Your task to perform on an android device: open wifi settings Image 0: 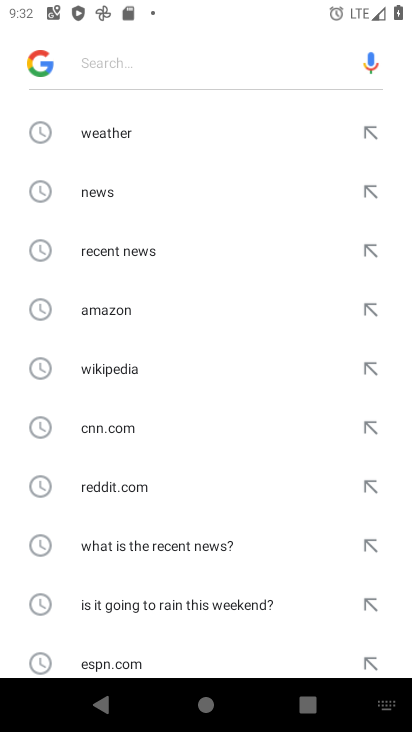
Step 0: press home button
Your task to perform on an android device: open wifi settings Image 1: 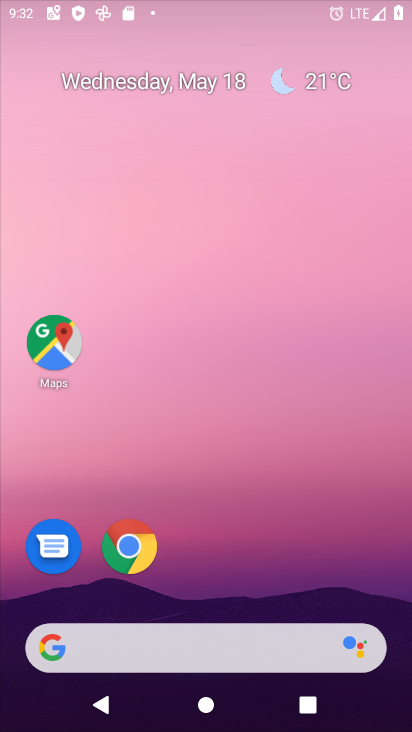
Step 1: drag from (394, 630) to (313, 1)
Your task to perform on an android device: open wifi settings Image 2: 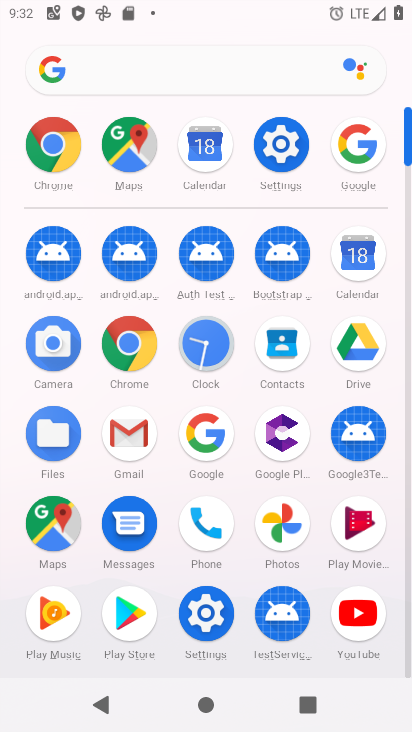
Step 2: click (280, 142)
Your task to perform on an android device: open wifi settings Image 3: 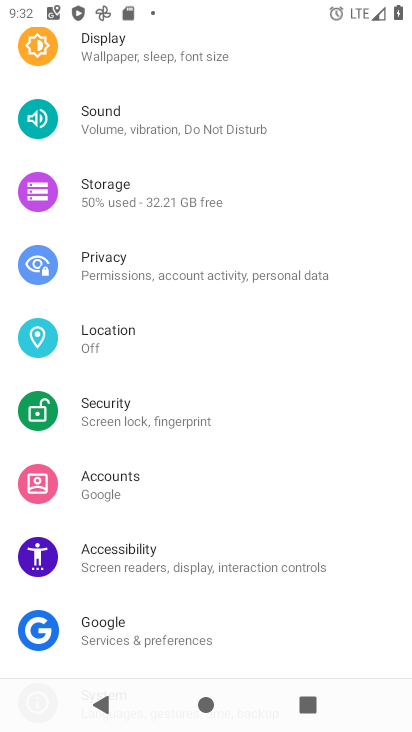
Step 3: drag from (189, 109) to (211, 557)
Your task to perform on an android device: open wifi settings Image 4: 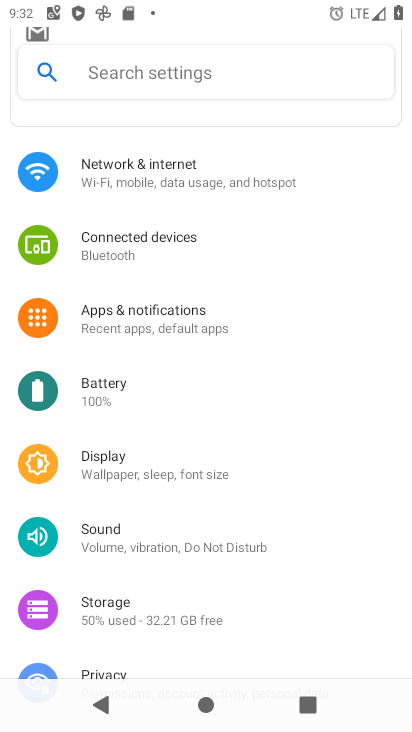
Step 4: click (132, 194)
Your task to perform on an android device: open wifi settings Image 5: 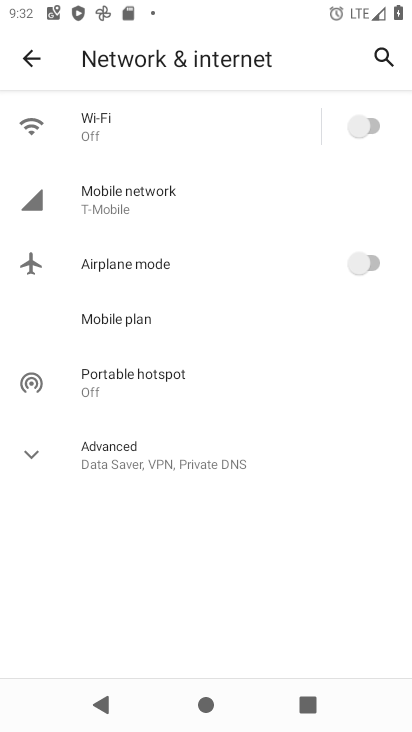
Step 5: click (195, 141)
Your task to perform on an android device: open wifi settings Image 6: 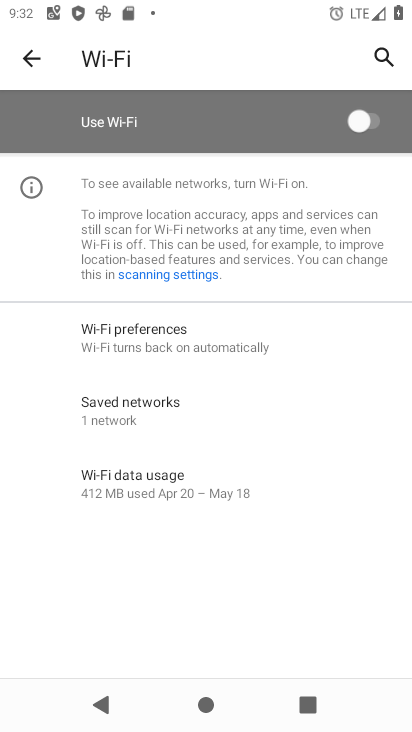
Step 6: task complete